Your task to perform on an android device: visit the assistant section in the google photos Image 0: 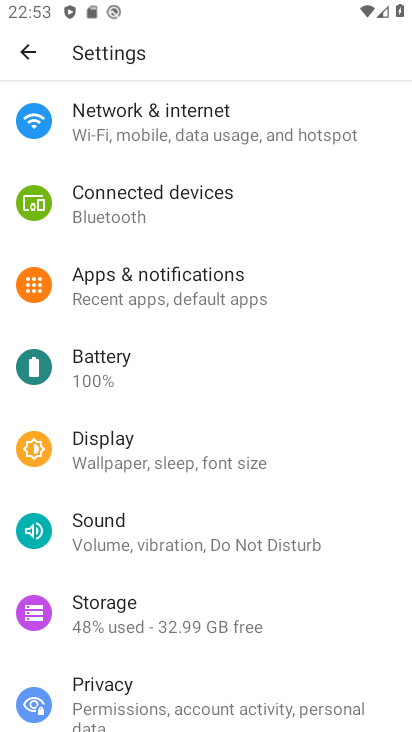
Step 0: press home button
Your task to perform on an android device: visit the assistant section in the google photos Image 1: 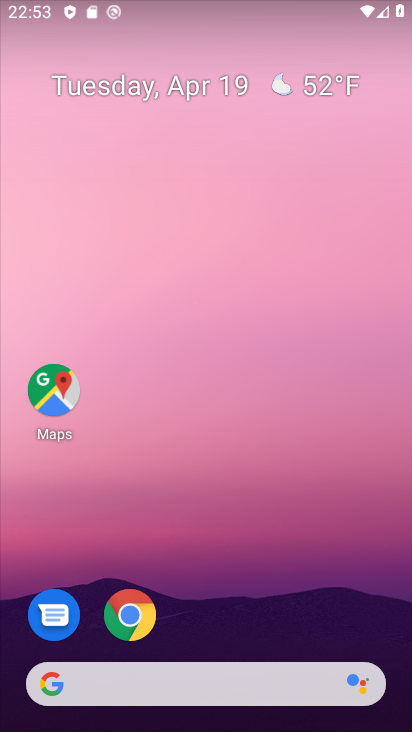
Step 1: drag from (288, 454) to (330, 0)
Your task to perform on an android device: visit the assistant section in the google photos Image 2: 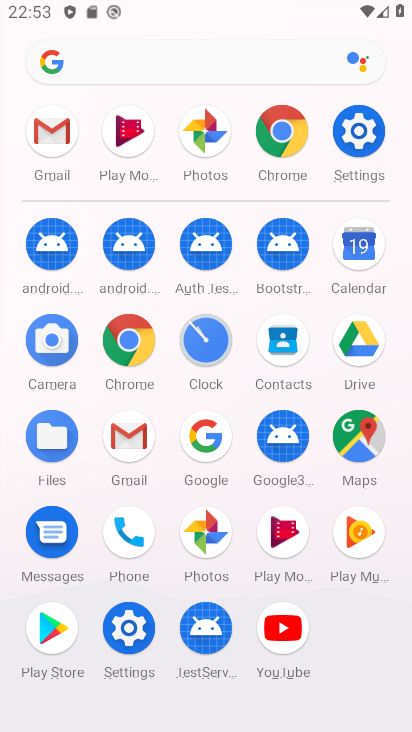
Step 2: click (212, 127)
Your task to perform on an android device: visit the assistant section in the google photos Image 3: 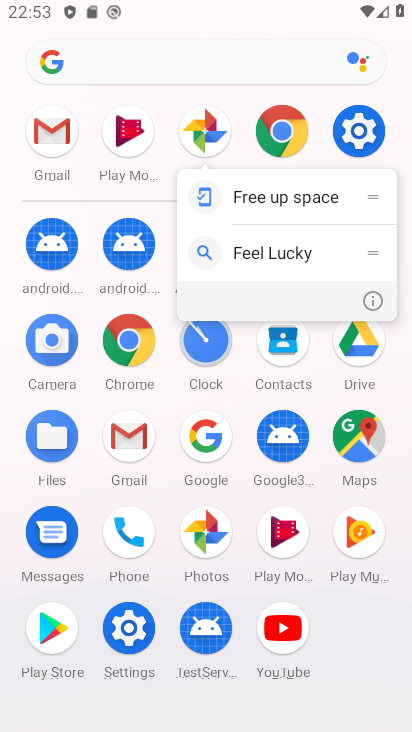
Step 3: click (212, 127)
Your task to perform on an android device: visit the assistant section in the google photos Image 4: 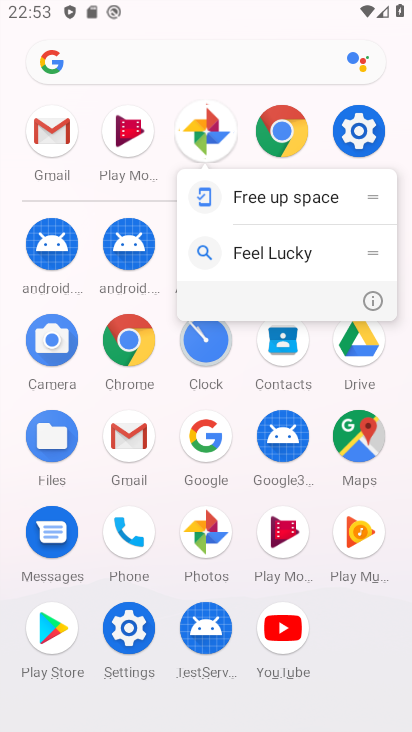
Step 4: click (212, 127)
Your task to perform on an android device: visit the assistant section in the google photos Image 5: 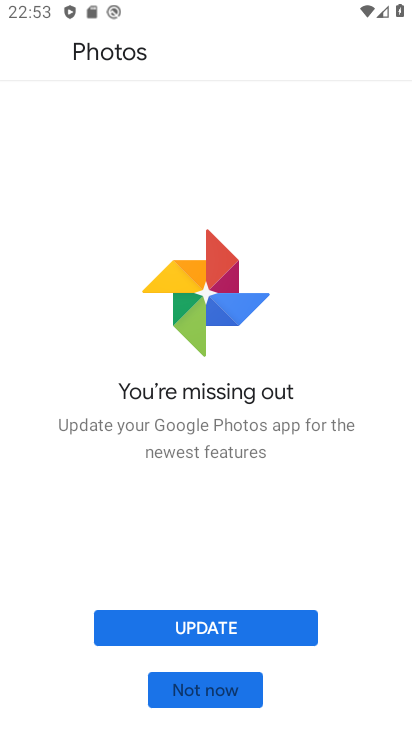
Step 5: click (203, 685)
Your task to perform on an android device: visit the assistant section in the google photos Image 6: 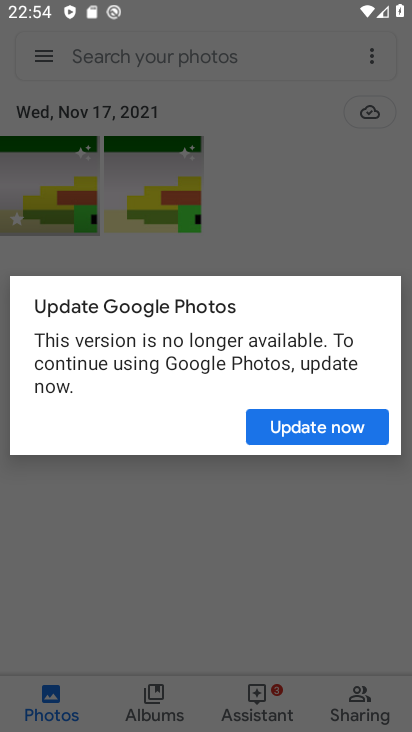
Step 6: click (298, 431)
Your task to perform on an android device: visit the assistant section in the google photos Image 7: 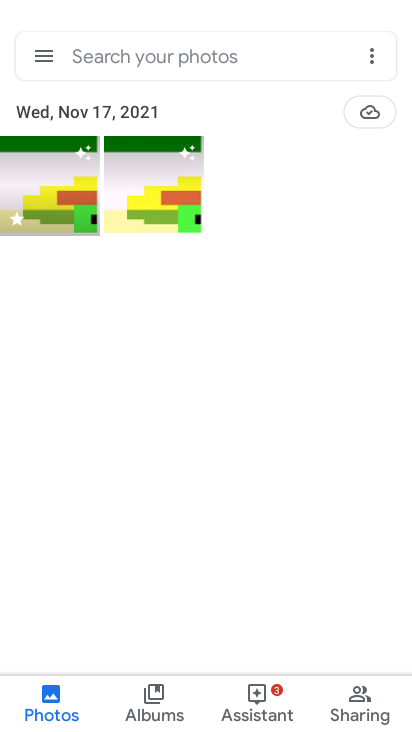
Step 7: click (298, 431)
Your task to perform on an android device: visit the assistant section in the google photos Image 8: 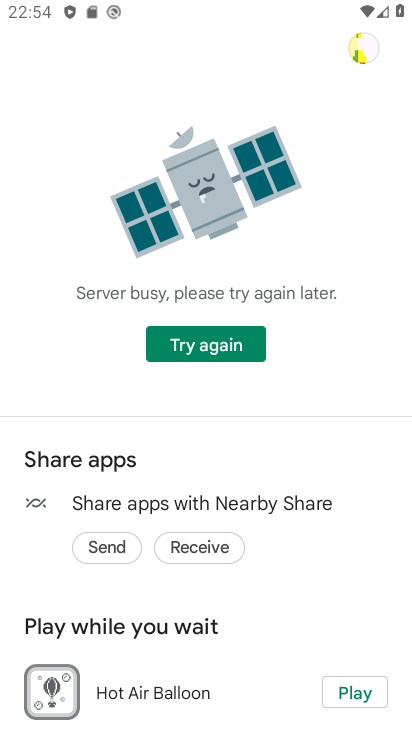
Step 8: task complete